Your task to perform on an android device: set the stopwatch Image 0: 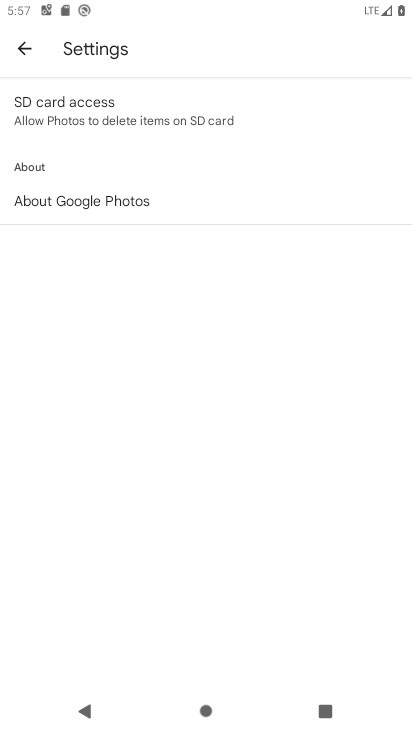
Step 0: press home button
Your task to perform on an android device: set the stopwatch Image 1: 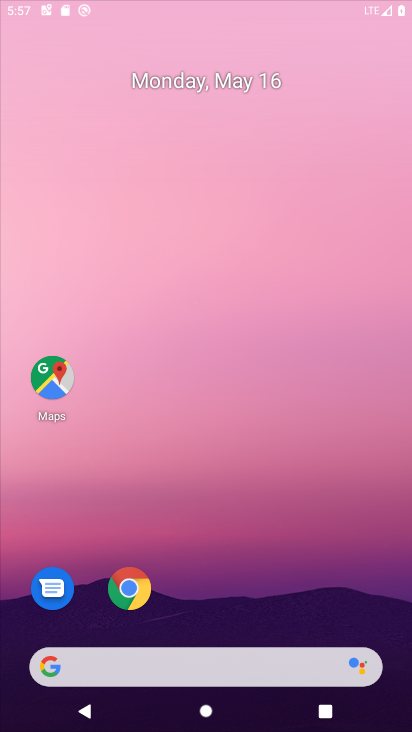
Step 1: drag from (284, 395) to (250, 17)
Your task to perform on an android device: set the stopwatch Image 2: 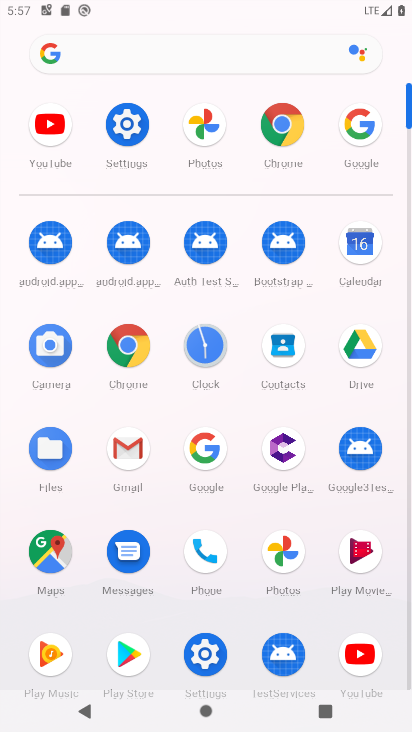
Step 2: click (205, 339)
Your task to perform on an android device: set the stopwatch Image 3: 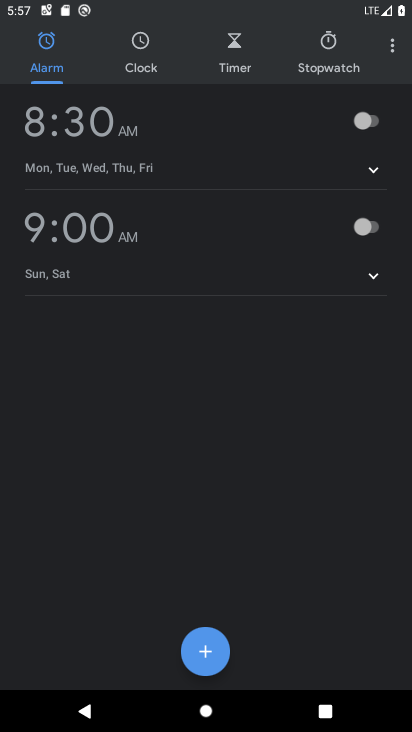
Step 3: click (327, 44)
Your task to perform on an android device: set the stopwatch Image 4: 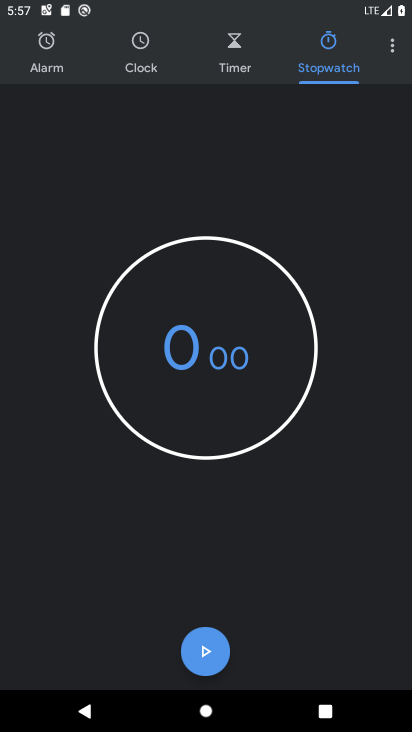
Step 4: click (212, 665)
Your task to perform on an android device: set the stopwatch Image 5: 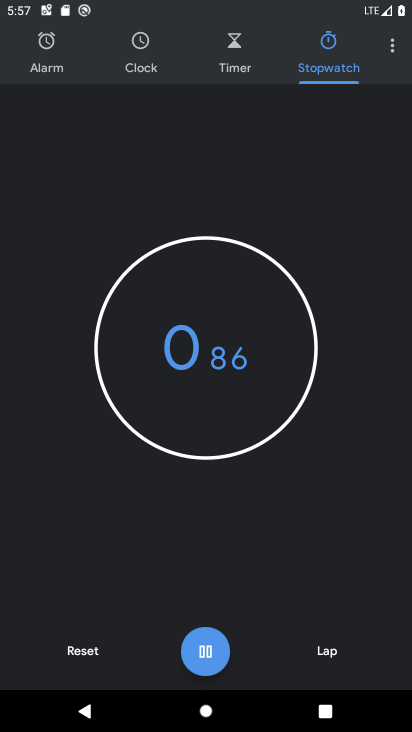
Step 5: task complete